Your task to perform on an android device: Go to privacy settings Image 0: 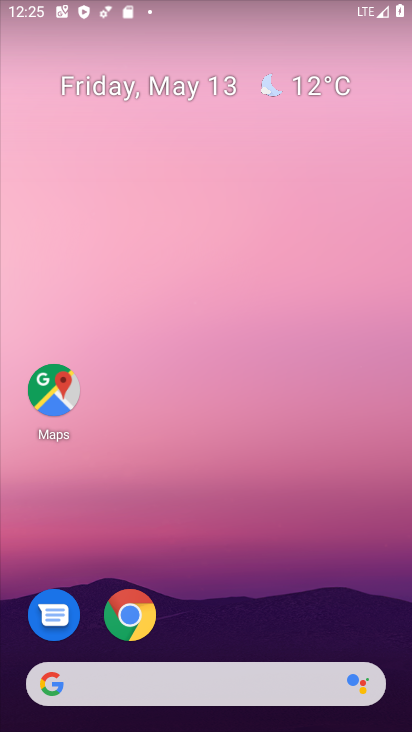
Step 0: drag from (218, 479) to (225, 158)
Your task to perform on an android device: Go to privacy settings Image 1: 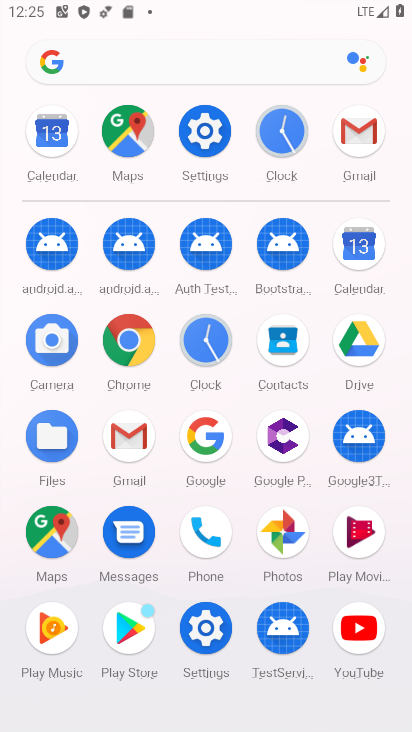
Step 1: click (211, 140)
Your task to perform on an android device: Go to privacy settings Image 2: 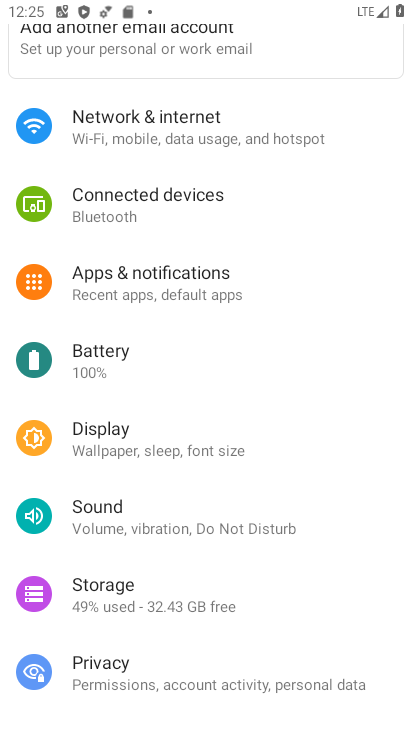
Step 2: click (146, 681)
Your task to perform on an android device: Go to privacy settings Image 3: 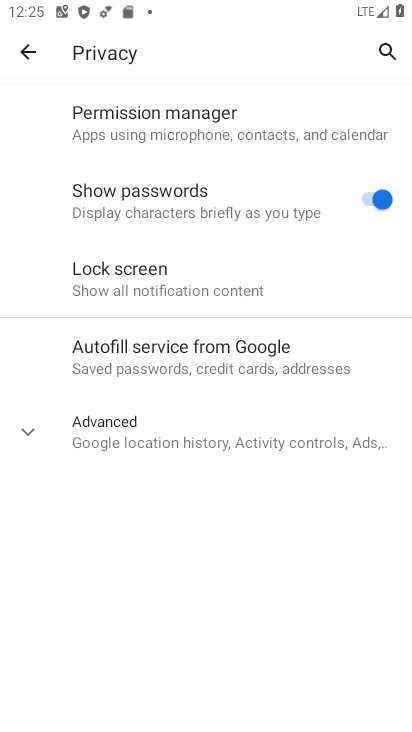
Step 3: task complete